Your task to perform on an android device: manage bookmarks in the chrome app Image 0: 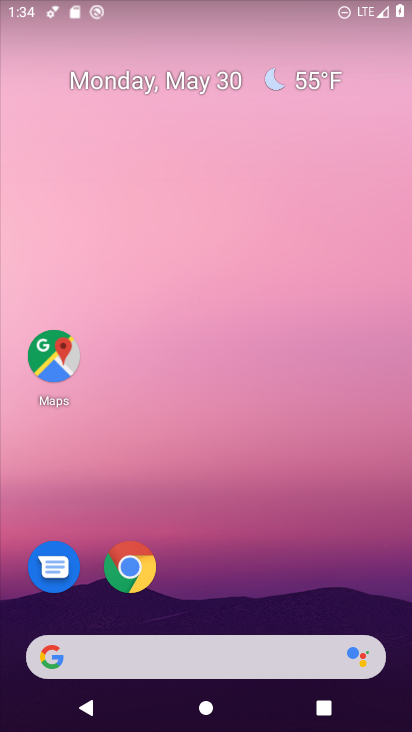
Step 0: click (128, 567)
Your task to perform on an android device: manage bookmarks in the chrome app Image 1: 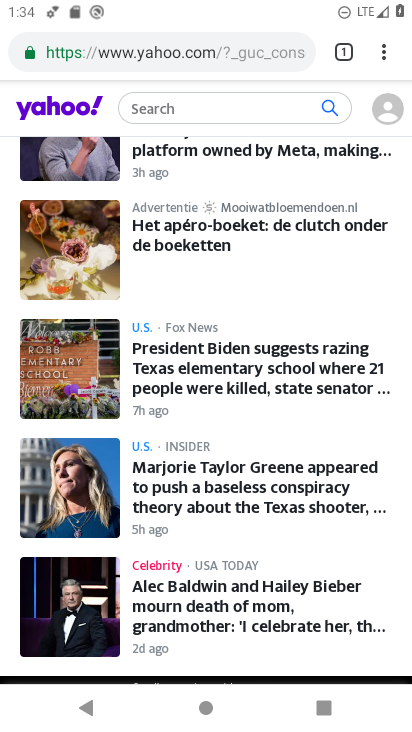
Step 1: click (386, 54)
Your task to perform on an android device: manage bookmarks in the chrome app Image 2: 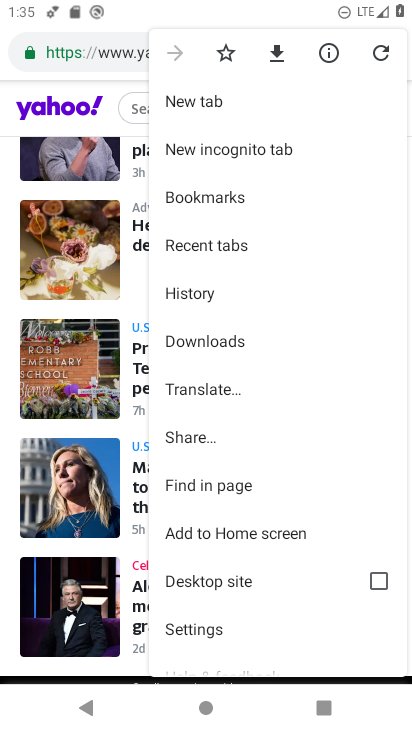
Step 2: click (260, 196)
Your task to perform on an android device: manage bookmarks in the chrome app Image 3: 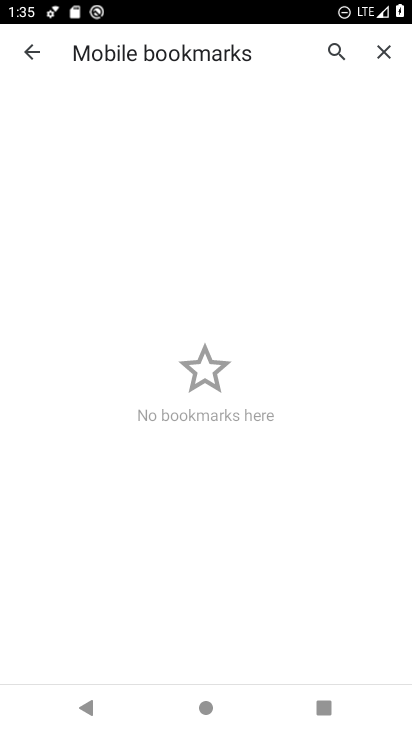
Step 3: task complete